Your task to perform on an android device: Turn on the flashlight Image 0: 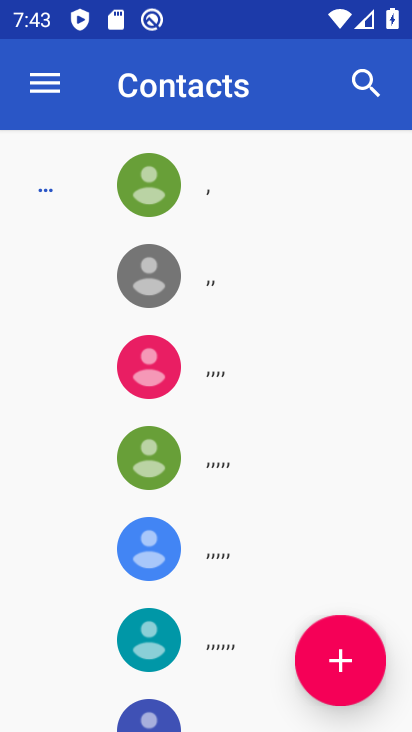
Step 0: press home button
Your task to perform on an android device: Turn on the flashlight Image 1: 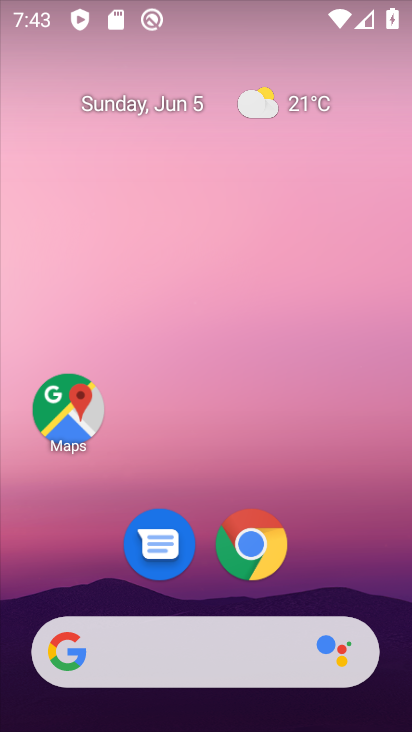
Step 1: drag from (400, 720) to (290, 27)
Your task to perform on an android device: Turn on the flashlight Image 2: 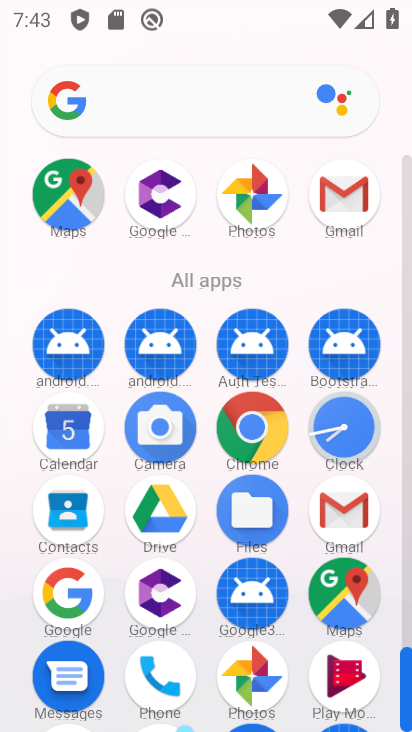
Step 2: drag from (208, 457) to (201, 302)
Your task to perform on an android device: Turn on the flashlight Image 3: 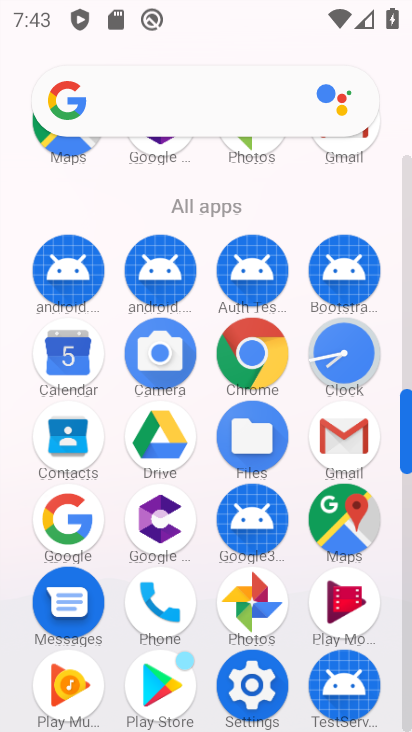
Step 3: click (239, 681)
Your task to perform on an android device: Turn on the flashlight Image 4: 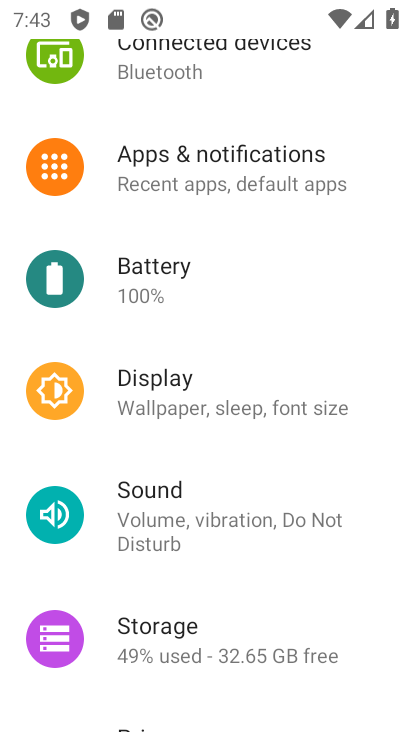
Step 4: click (161, 396)
Your task to perform on an android device: Turn on the flashlight Image 5: 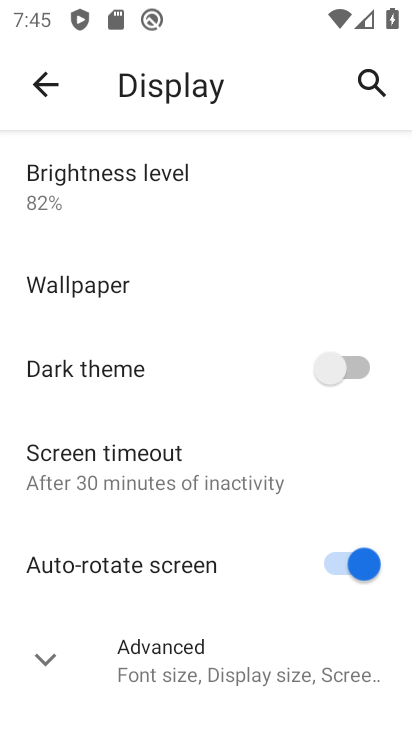
Step 5: task complete